Your task to perform on an android device: turn off picture-in-picture Image 0: 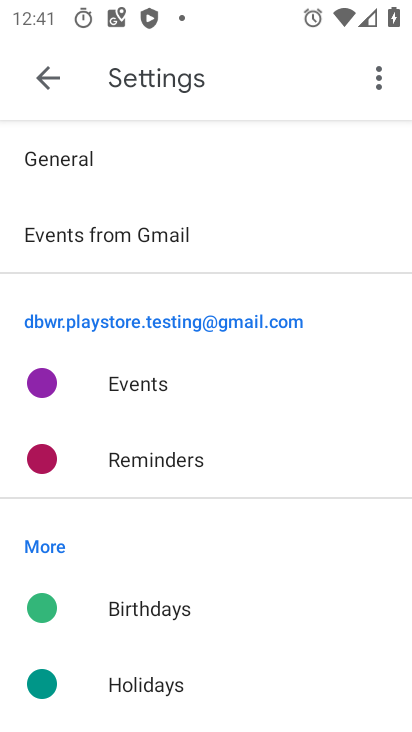
Step 0: press home button
Your task to perform on an android device: turn off picture-in-picture Image 1: 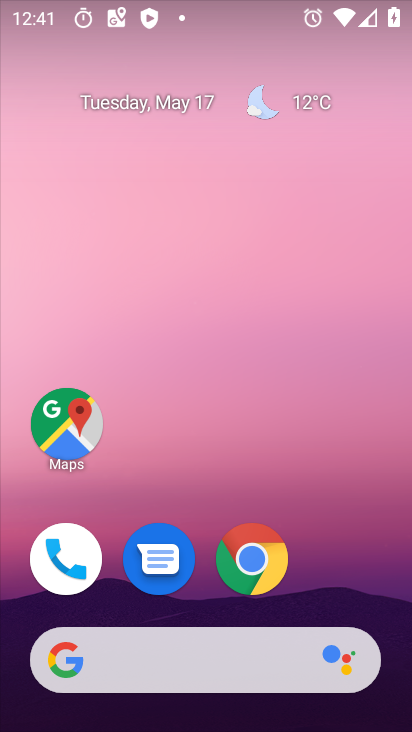
Step 1: click (327, 544)
Your task to perform on an android device: turn off picture-in-picture Image 2: 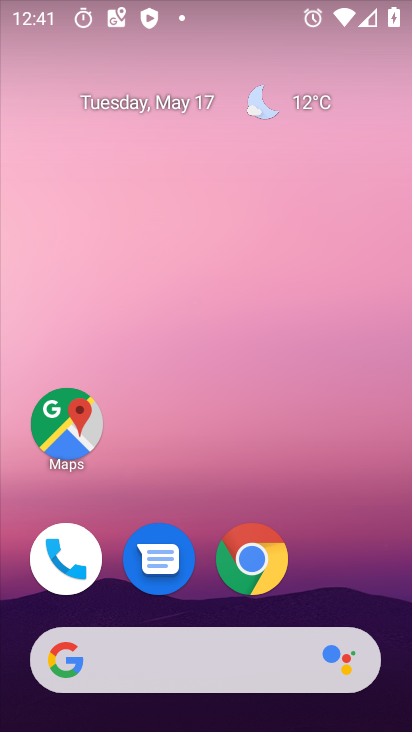
Step 2: click (253, 553)
Your task to perform on an android device: turn off picture-in-picture Image 3: 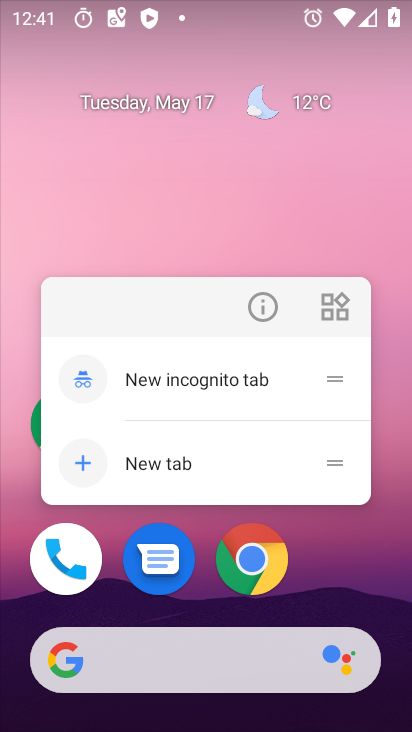
Step 3: click (264, 299)
Your task to perform on an android device: turn off picture-in-picture Image 4: 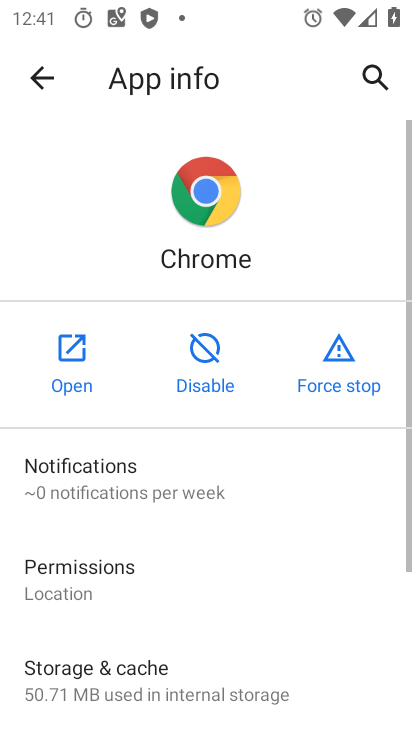
Step 4: drag from (284, 534) to (241, 20)
Your task to perform on an android device: turn off picture-in-picture Image 5: 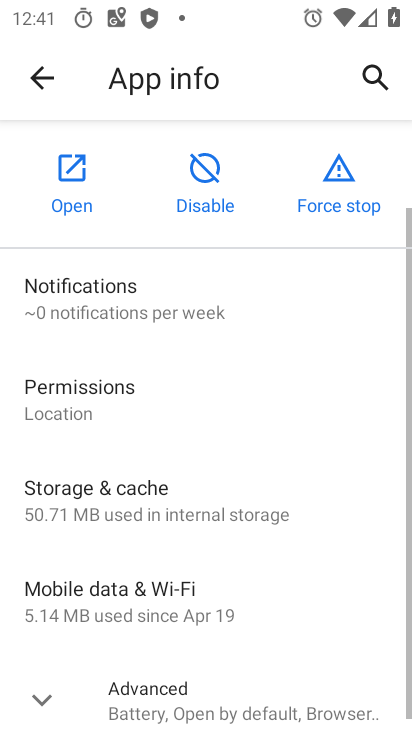
Step 5: click (230, 684)
Your task to perform on an android device: turn off picture-in-picture Image 6: 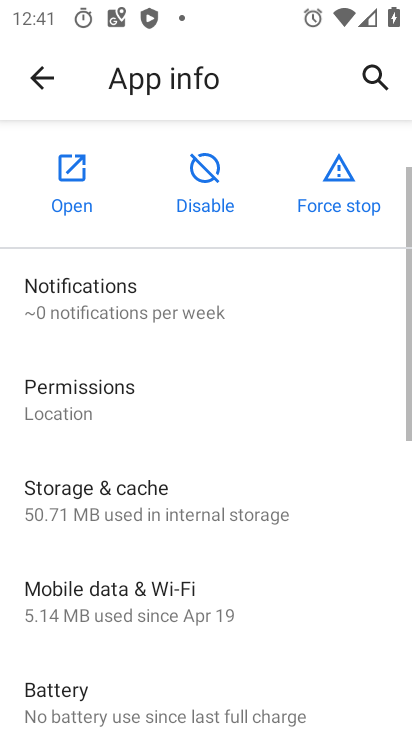
Step 6: drag from (302, 618) to (346, 135)
Your task to perform on an android device: turn off picture-in-picture Image 7: 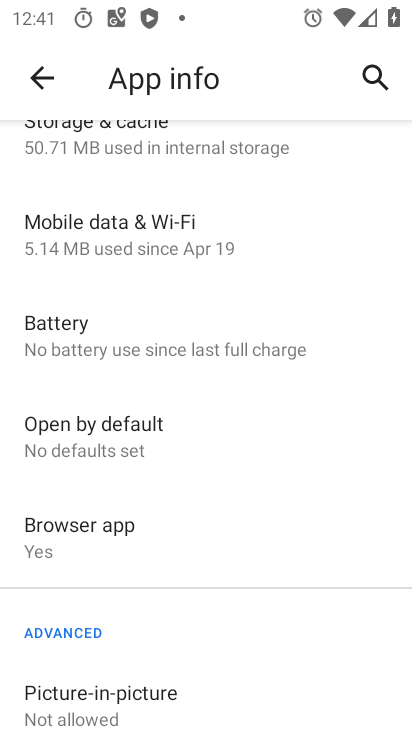
Step 7: drag from (326, 681) to (331, 252)
Your task to perform on an android device: turn off picture-in-picture Image 8: 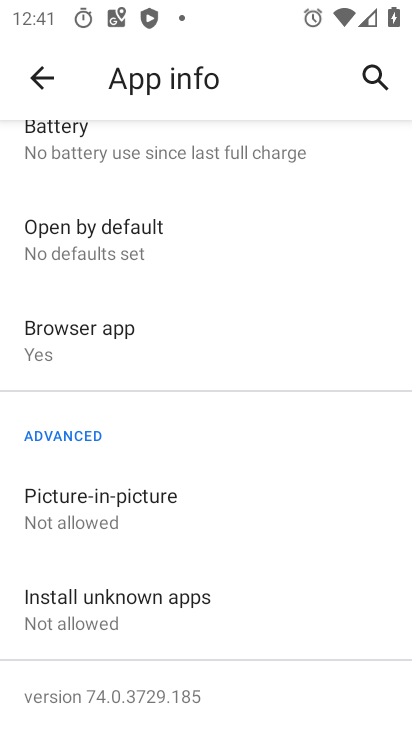
Step 8: click (126, 509)
Your task to perform on an android device: turn off picture-in-picture Image 9: 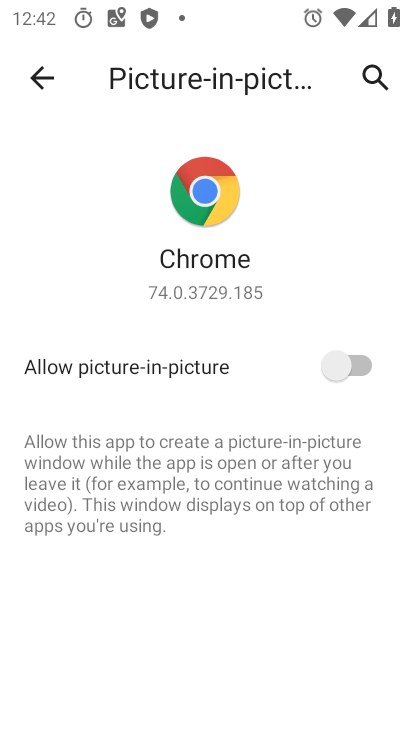
Step 9: task complete